Your task to perform on an android device: Check the news Image 0: 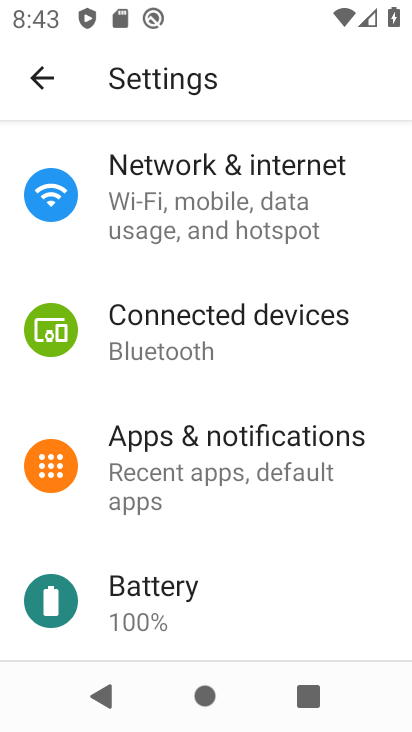
Step 0: press back button
Your task to perform on an android device: Check the news Image 1: 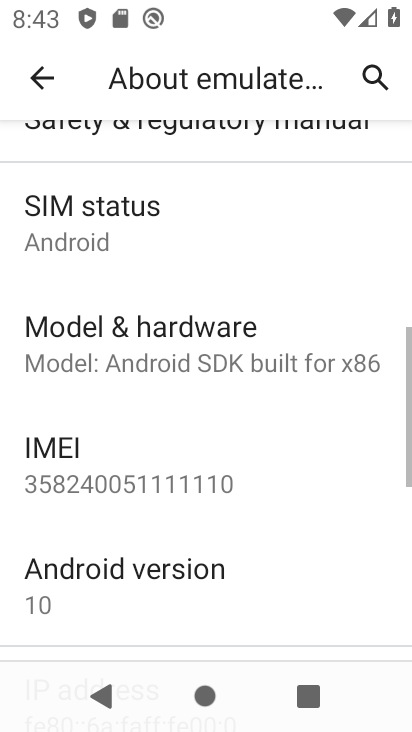
Step 1: press back button
Your task to perform on an android device: Check the news Image 2: 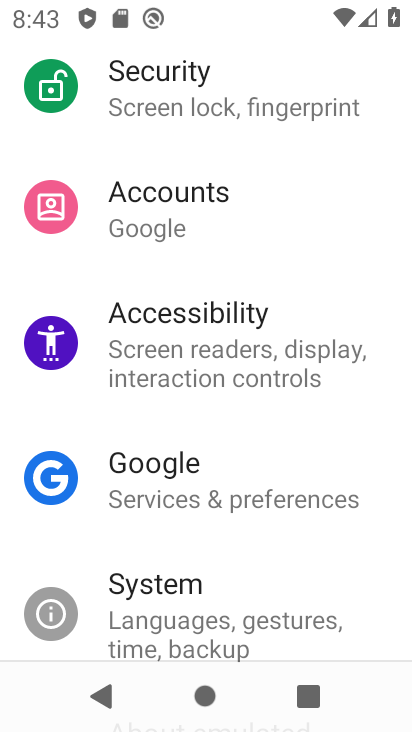
Step 2: press back button
Your task to perform on an android device: Check the news Image 3: 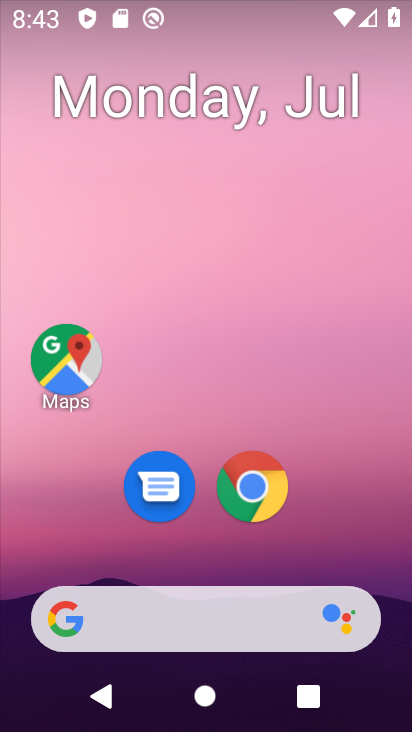
Step 3: click (171, 613)
Your task to perform on an android device: Check the news Image 4: 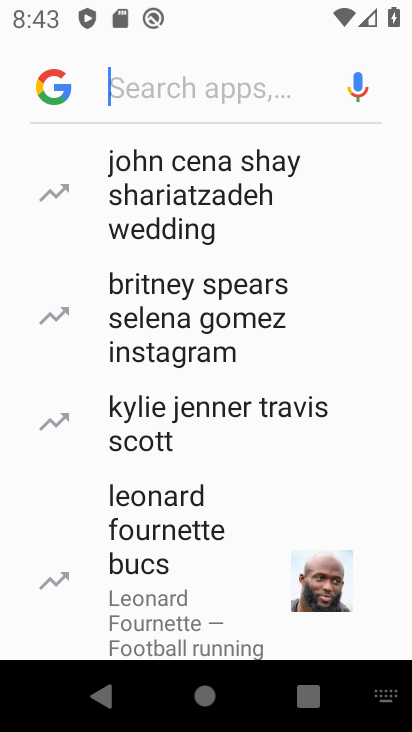
Step 4: click (129, 91)
Your task to perform on an android device: Check the news Image 5: 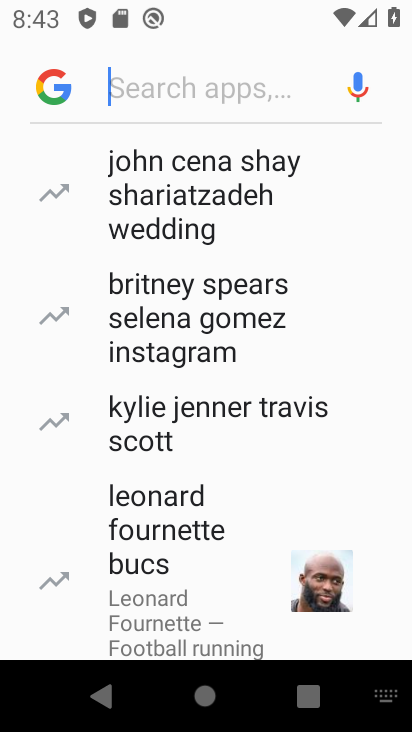
Step 5: type "news"
Your task to perform on an android device: Check the news Image 6: 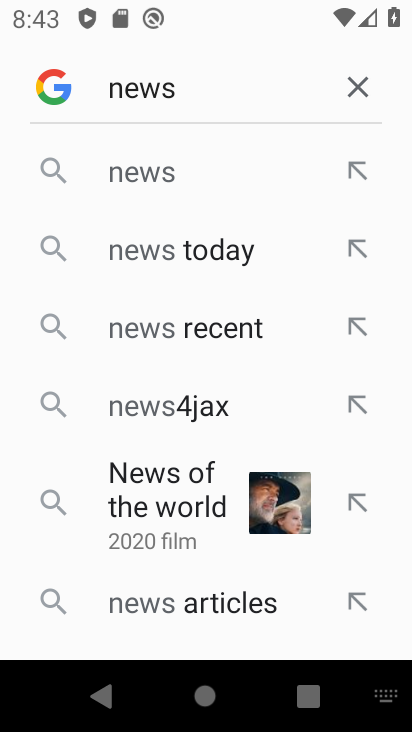
Step 6: click (147, 165)
Your task to perform on an android device: Check the news Image 7: 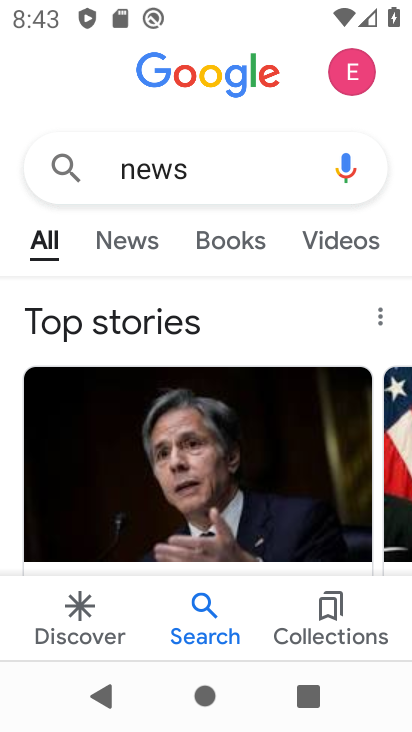
Step 7: task complete